Your task to perform on an android device: toggle airplane mode Image 0: 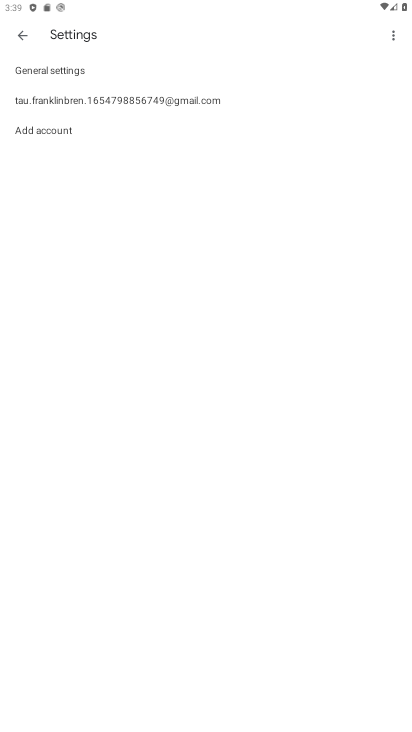
Step 0: press home button
Your task to perform on an android device: toggle airplane mode Image 1: 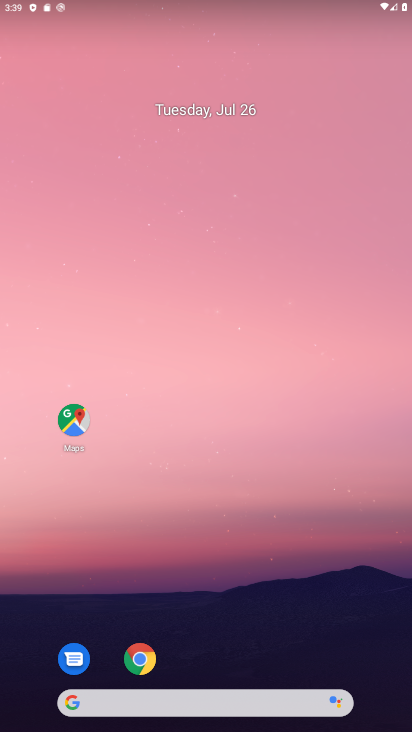
Step 1: drag from (264, 588) to (314, 11)
Your task to perform on an android device: toggle airplane mode Image 2: 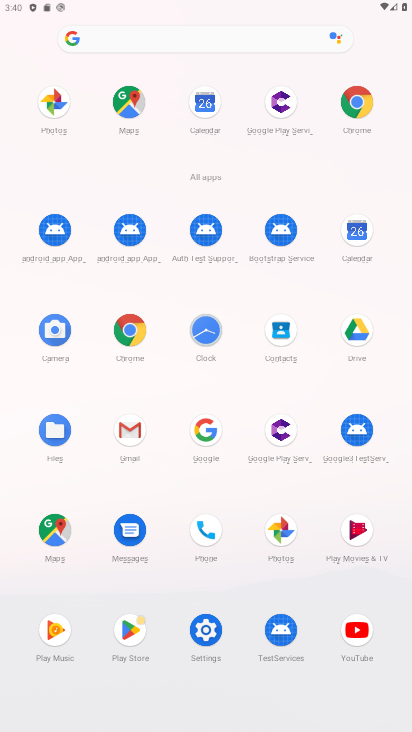
Step 2: drag from (324, 657) to (295, 146)
Your task to perform on an android device: toggle airplane mode Image 3: 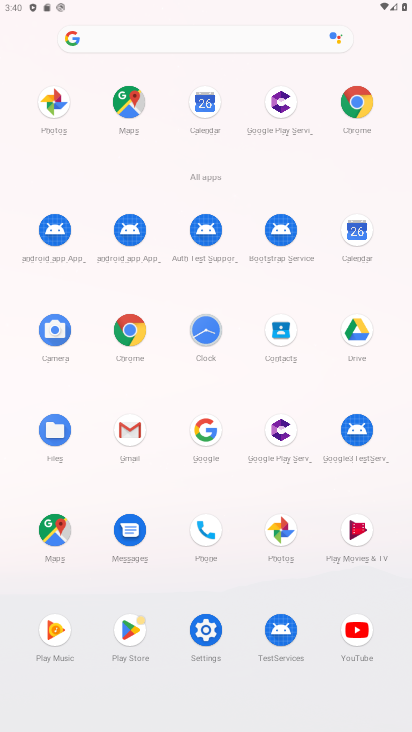
Step 3: click (213, 637)
Your task to perform on an android device: toggle airplane mode Image 4: 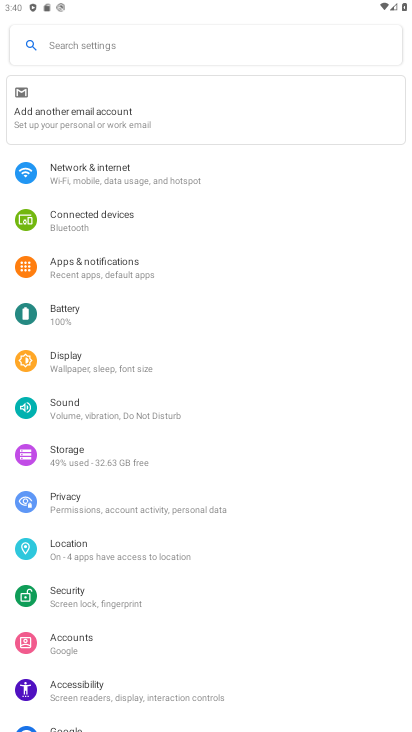
Step 4: click (69, 180)
Your task to perform on an android device: toggle airplane mode Image 5: 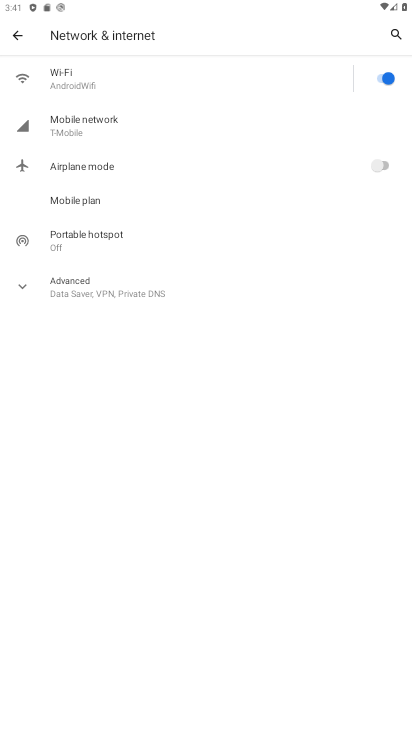
Step 5: click (388, 169)
Your task to perform on an android device: toggle airplane mode Image 6: 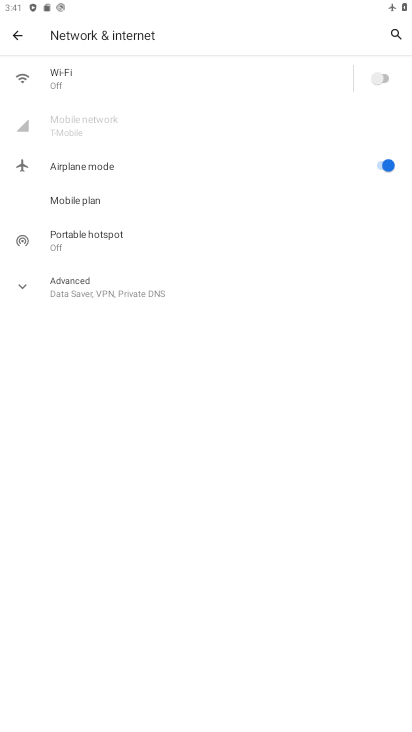
Step 6: task complete